Your task to perform on an android device: View the shopping cart on newegg.com. Add asus zenbook to the cart on newegg.com Image 0: 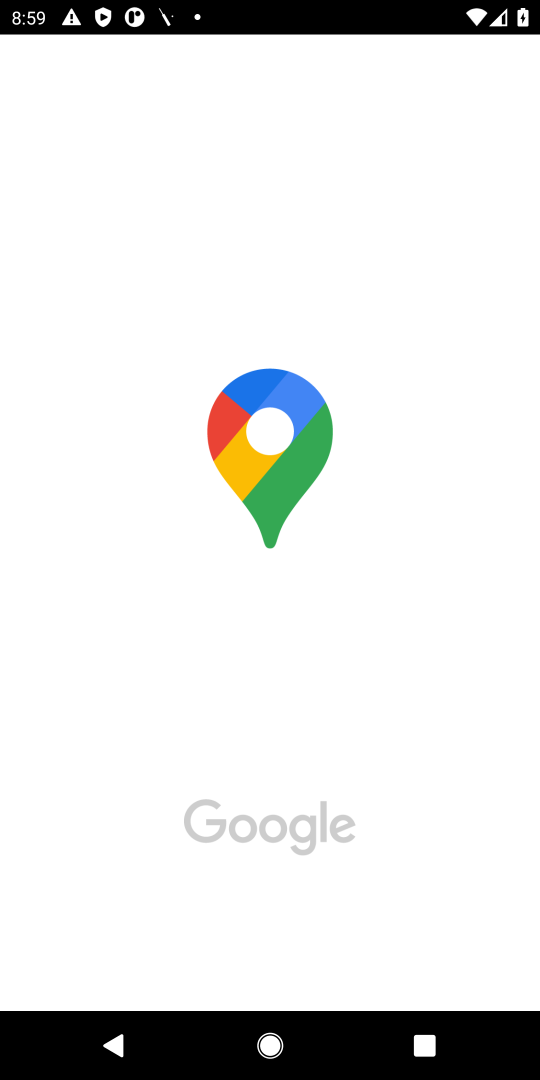
Step 0: press home button
Your task to perform on an android device: View the shopping cart on newegg.com. Add asus zenbook to the cart on newegg.com Image 1: 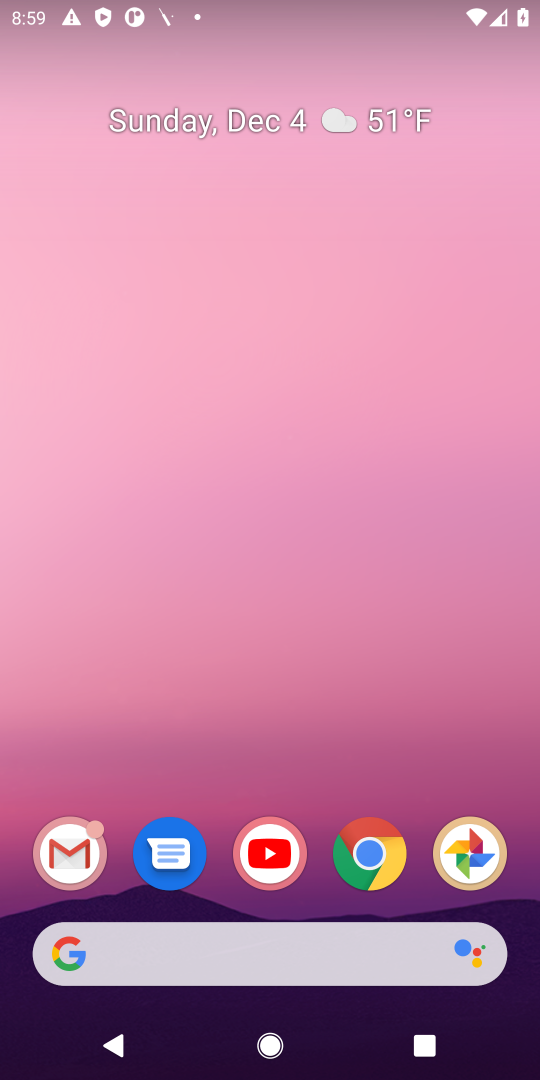
Step 1: click (357, 857)
Your task to perform on an android device: View the shopping cart on newegg.com. Add asus zenbook to the cart on newegg.com Image 2: 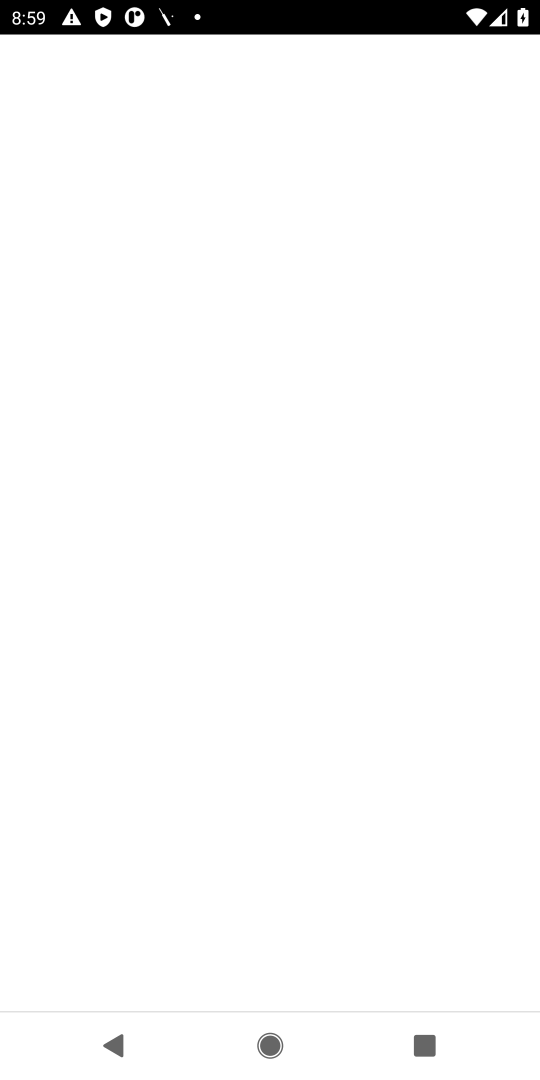
Step 2: task complete